Your task to perform on an android device: open the mobile data screen to see how much data has been used Image 0: 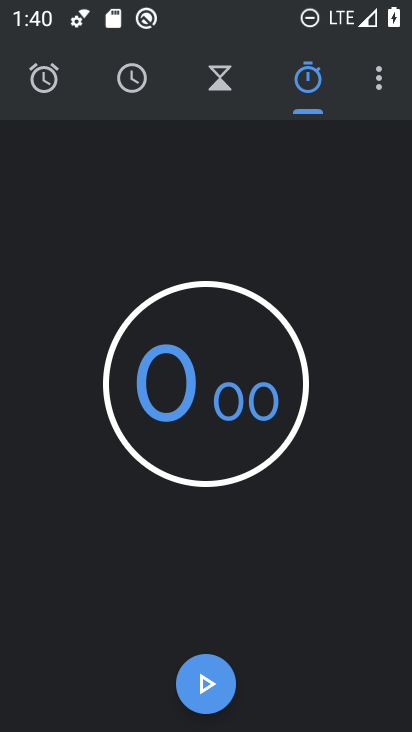
Step 0: press home button
Your task to perform on an android device: open the mobile data screen to see how much data has been used Image 1: 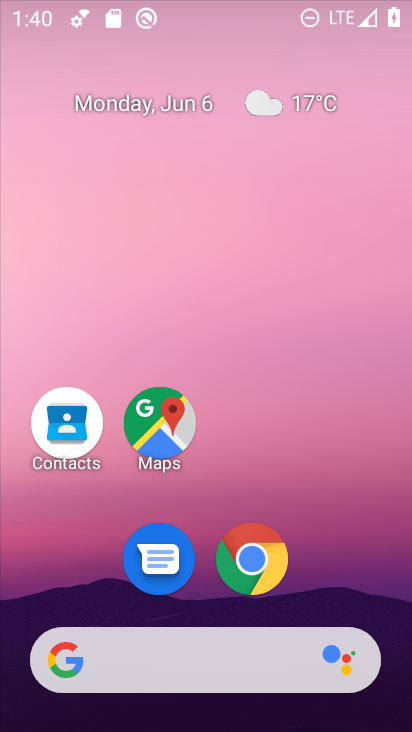
Step 1: drag from (258, 570) to (298, 176)
Your task to perform on an android device: open the mobile data screen to see how much data has been used Image 2: 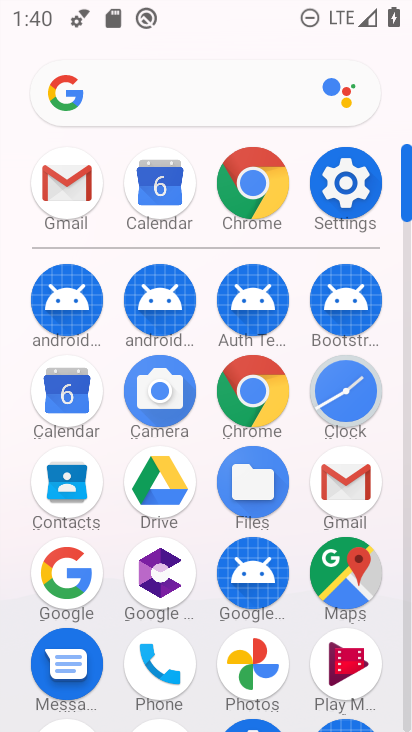
Step 2: click (351, 195)
Your task to perform on an android device: open the mobile data screen to see how much data has been used Image 3: 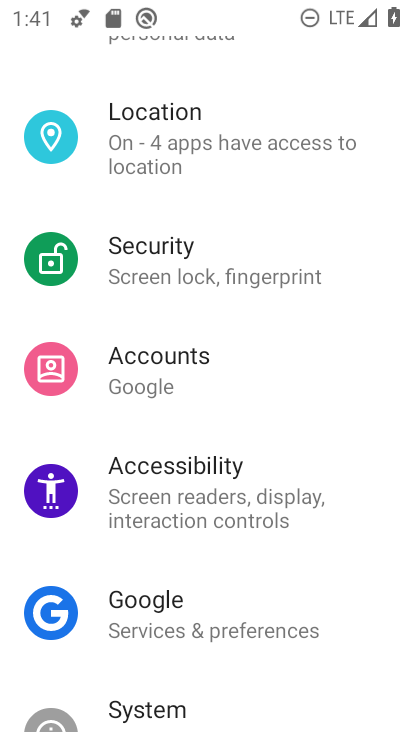
Step 3: drag from (196, 238) to (231, 697)
Your task to perform on an android device: open the mobile data screen to see how much data has been used Image 4: 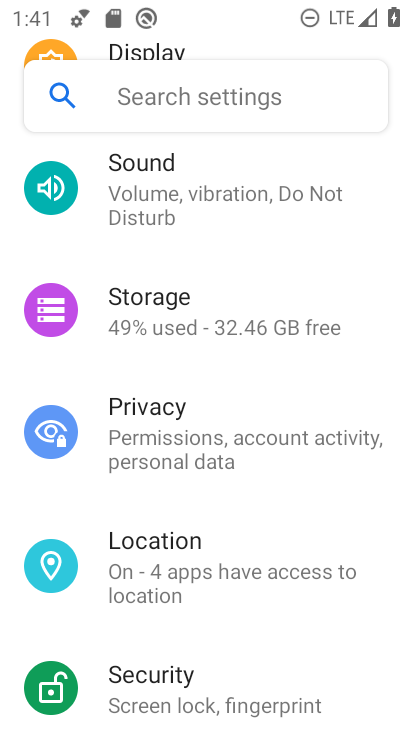
Step 4: drag from (269, 263) to (242, 610)
Your task to perform on an android device: open the mobile data screen to see how much data has been used Image 5: 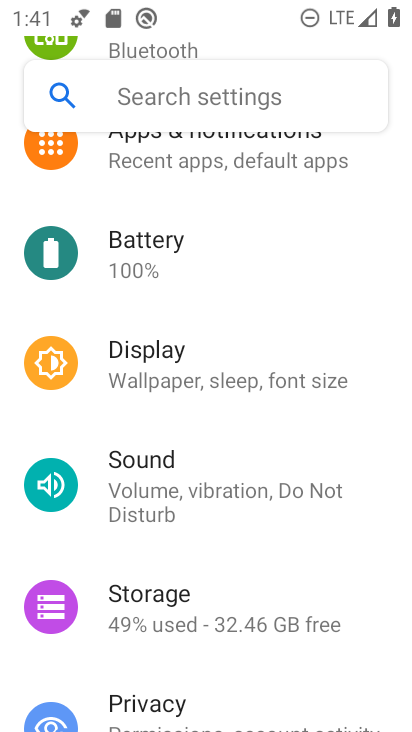
Step 5: drag from (279, 347) to (264, 690)
Your task to perform on an android device: open the mobile data screen to see how much data has been used Image 6: 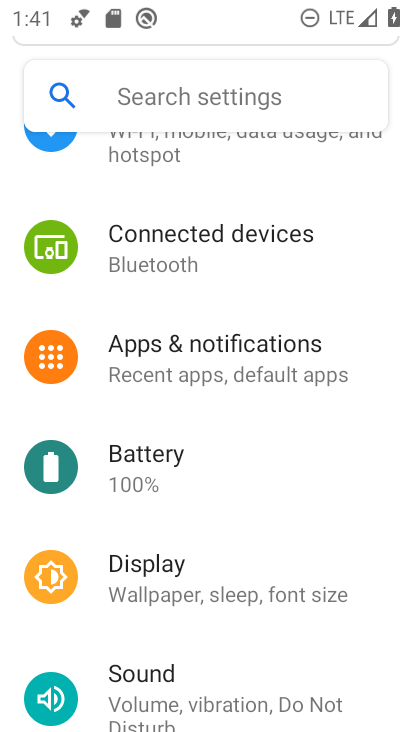
Step 6: drag from (281, 297) to (291, 623)
Your task to perform on an android device: open the mobile data screen to see how much data has been used Image 7: 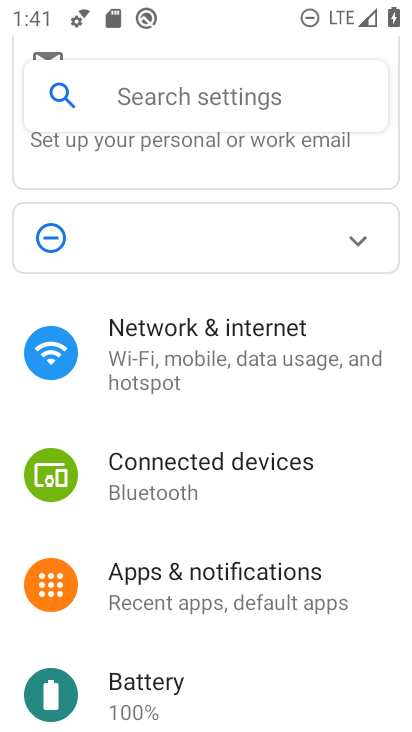
Step 7: click (225, 364)
Your task to perform on an android device: open the mobile data screen to see how much data has been used Image 8: 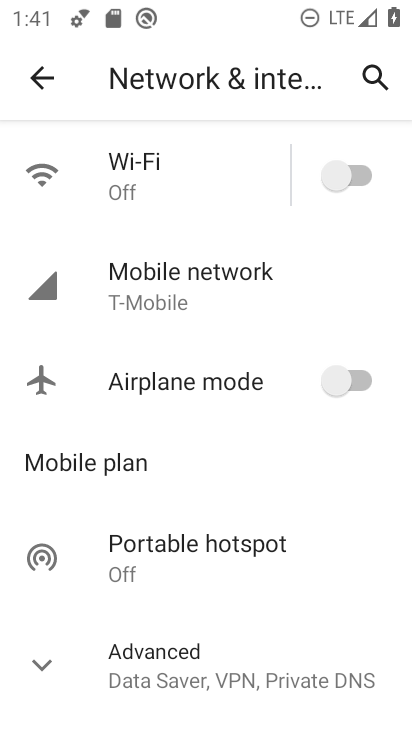
Step 8: click (221, 292)
Your task to perform on an android device: open the mobile data screen to see how much data has been used Image 9: 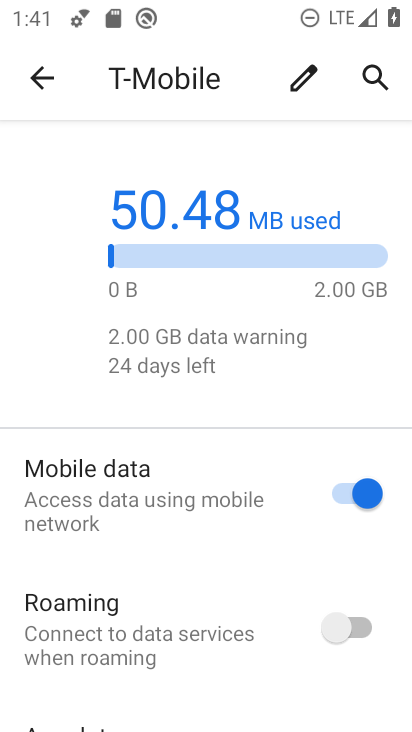
Step 9: task complete